Your task to perform on an android device: Open notification settings Image 0: 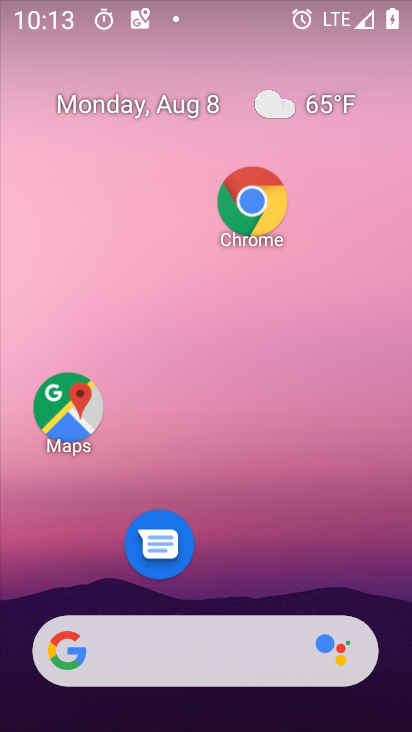
Step 0: press home button
Your task to perform on an android device: Open notification settings Image 1: 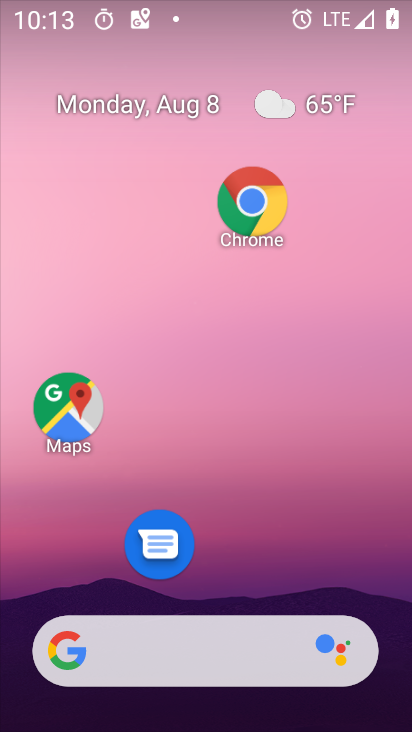
Step 1: drag from (222, 588) to (198, 22)
Your task to perform on an android device: Open notification settings Image 2: 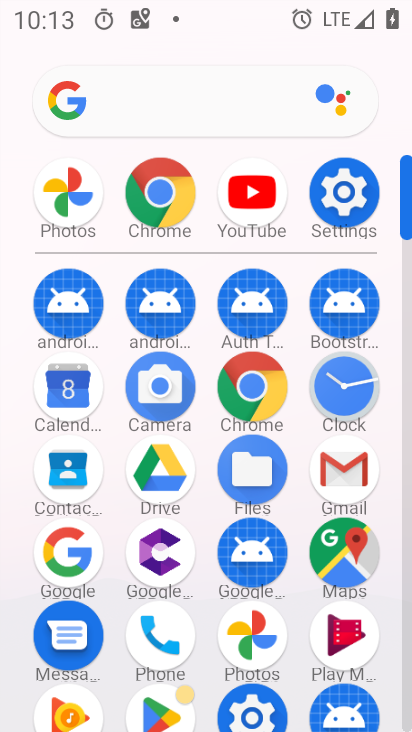
Step 2: click (345, 184)
Your task to perform on an android device: Open notification settings Image 3: 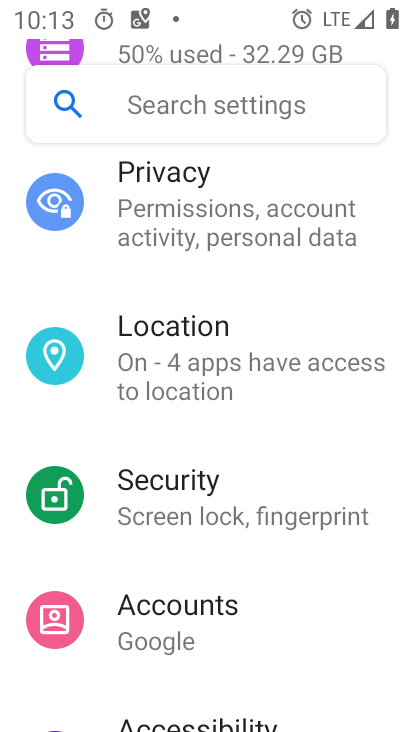
Step 3: drag from (211, 173) to (223, 730)
Your task to perform on an android device: Open notification settings Image 4: 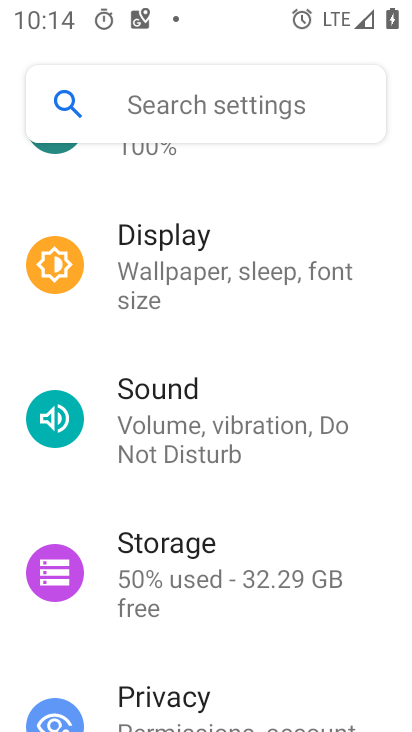
Step 4: drag from (233, 223) to (254, 720)
Your task to perform on an android device: Open notification settings Image 5: 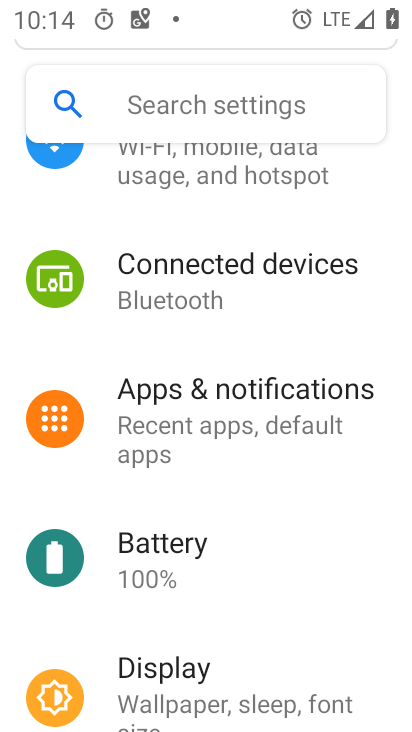
Step 5: click (246, 418)
Your task to perform on an android device: Open notification settings Image 6: 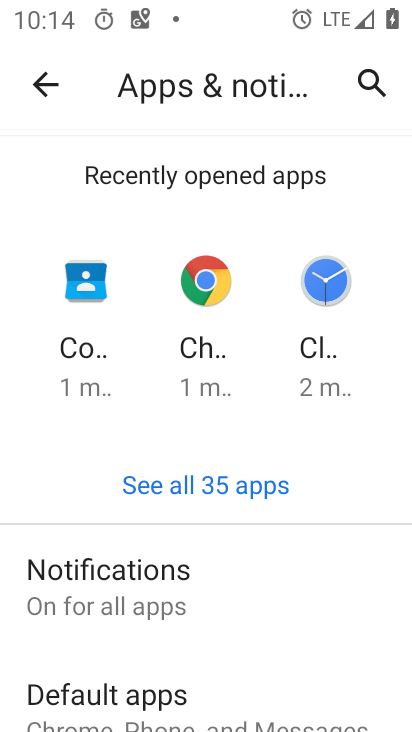
Step 6: click (219, 581)
Your task to perform on an android device: Open notification settings Image 7: 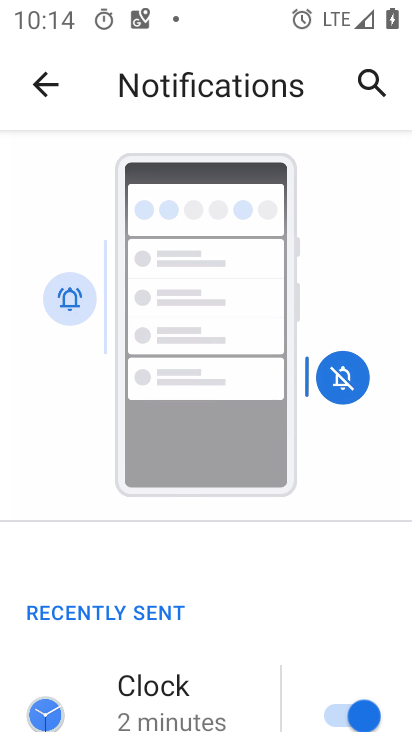
Step 7: drag from (227, 670) to (226, 184)
Your task to perform on an android device: Open notification settings Image 8: 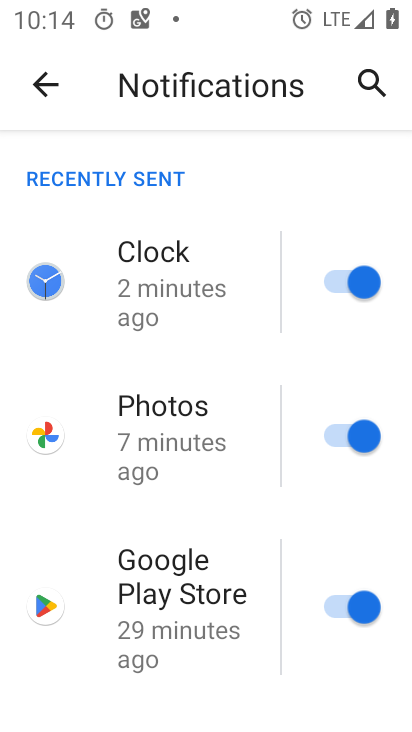
Step 8: drag from (243, 681) to (236, 352)
Your task to perform on an android device: Open notification settings Image 9: 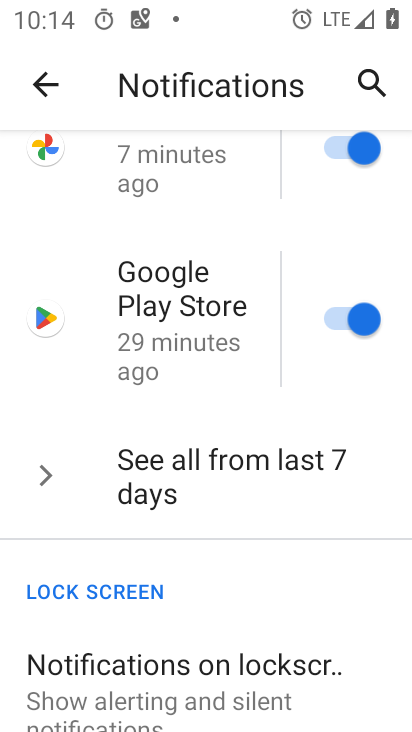
Step 9: drag from (183, 686) to (194, 237)
Your task to perform on an android device: Open notification settings Image 10: 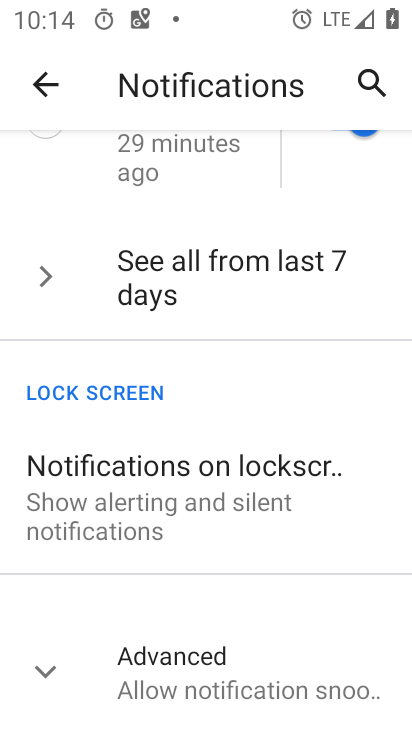
Step 10: click (42, 669)
Your task to perform on an android device: Open notification settings Image 11: 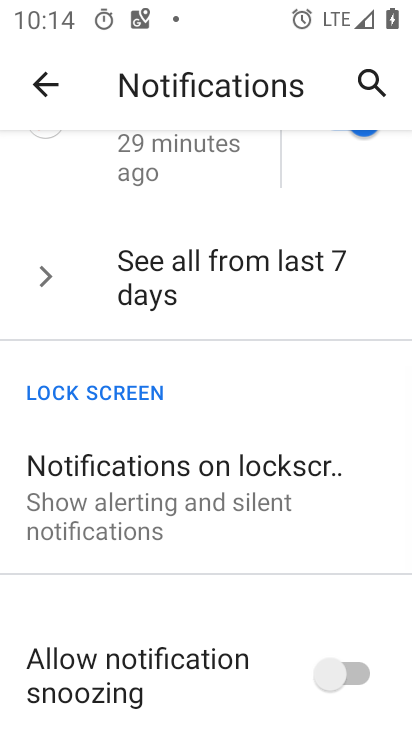
Step 11: task complete